Your task to perform on an android device: Open CNN.com Image 0: 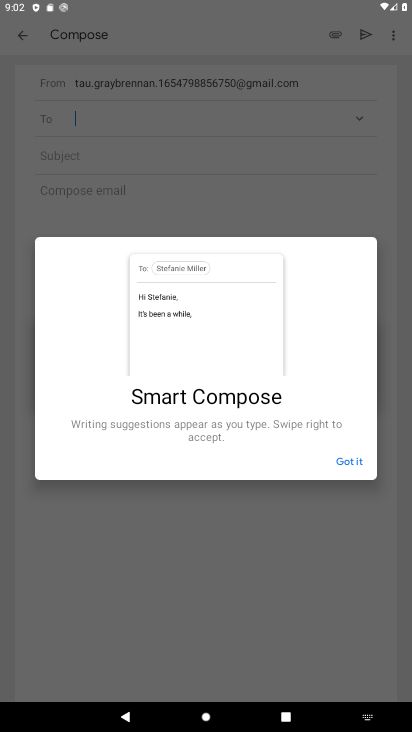
Step 0: task complete